Your task to perform on an android device: delete location history Image 0: 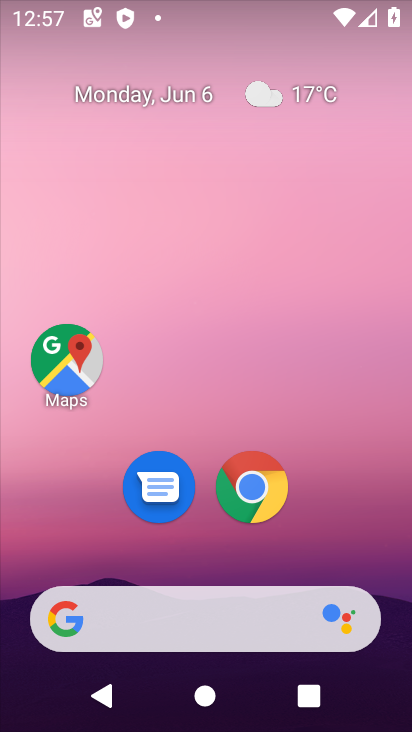
Step 0: click (67, 359)
Your task to perform on an android device: delete location history Image 1: 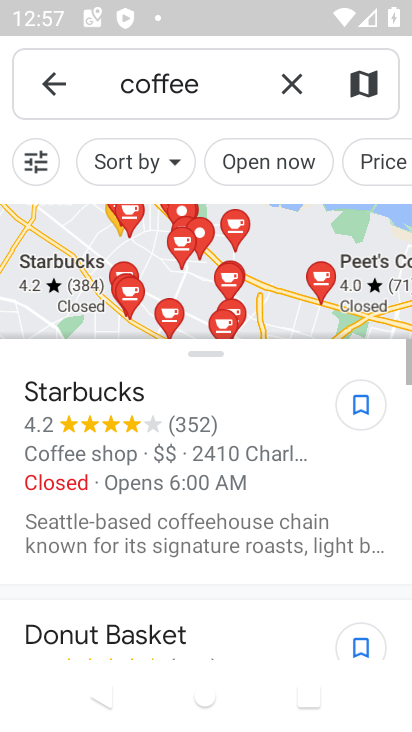
Step 1: click (54, 88)
Your task to perform on an android device: delete location history Image 2: 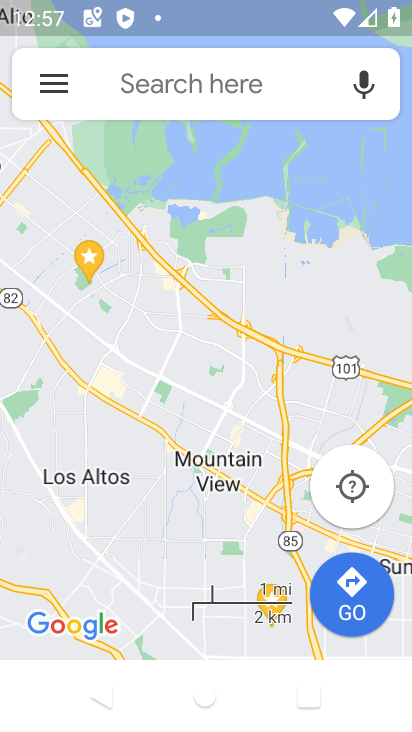
Step 2: click (54, 88)
Your task to perform on an android device: delete location history Image 3: 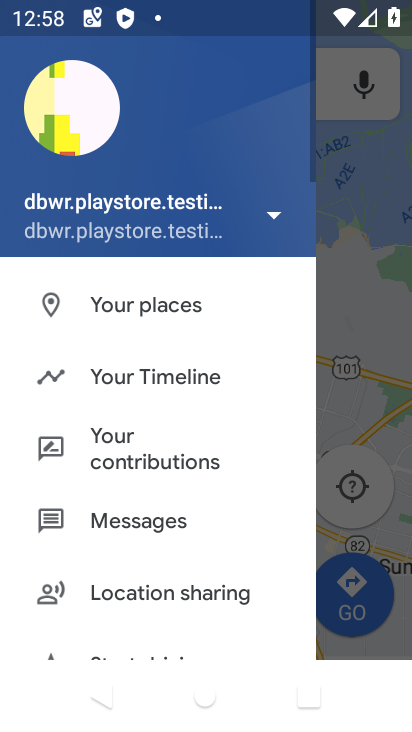
Step 3: click (143, 362)
Your task to perform on an android device: delete location history Image 4: 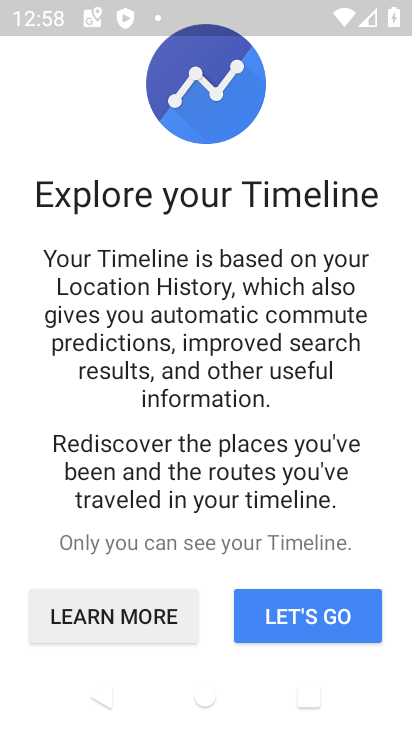
Step 4: click (355, 619)
Your task to perform on an android device: delete location history Image 5: 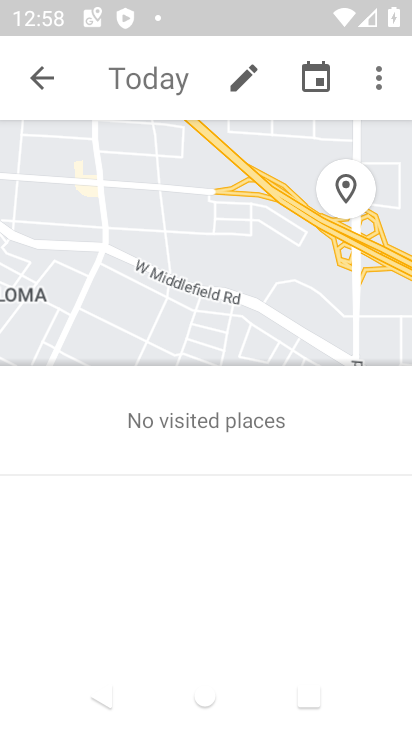
Step 5: click (369, 84)
Your task to perform on an android device: delete location history Image 6: 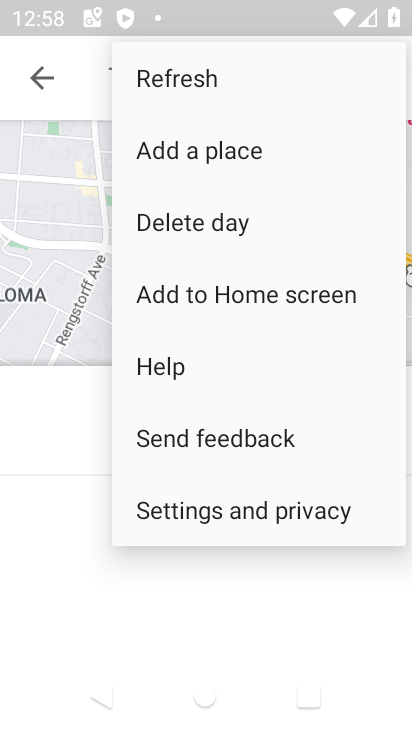
Step 6: click (198, 505)
Your task to perform on an android device: delete location history Image 7: 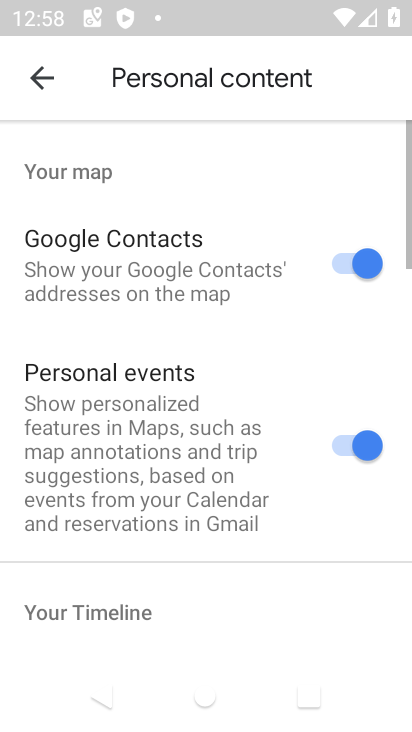
Step 7: drag from (187, 518) to (222, 38)
Your task to perform on an android device: delete location history Image 8: 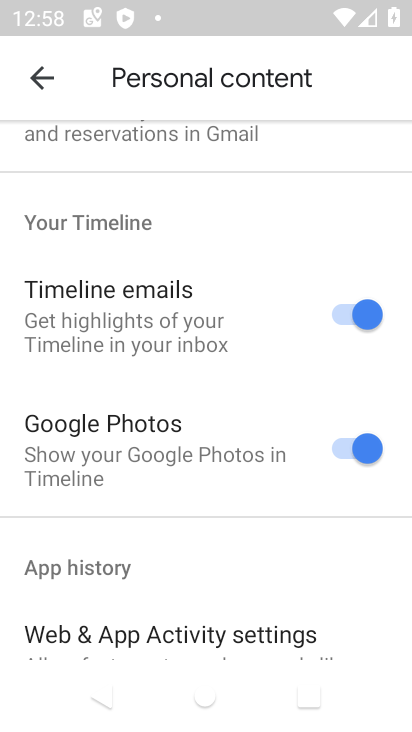
Step 8: drag from (146, 585) to (228, 33)
Your task to perform on an android device: delete location history Image 9: 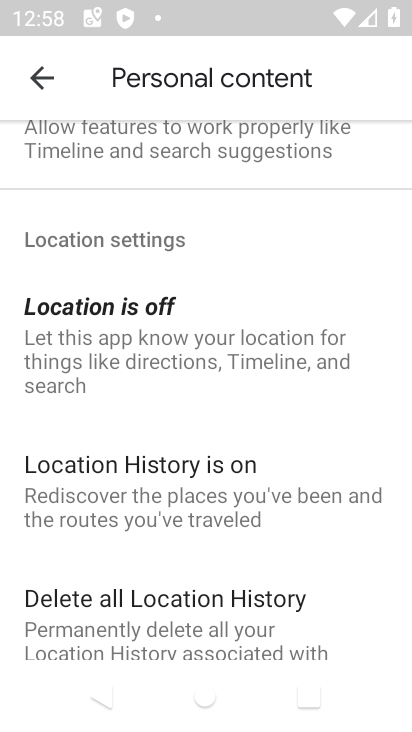
Step 9: click (152, 629)
Your task to perform on an android device: delete location history Image 10: 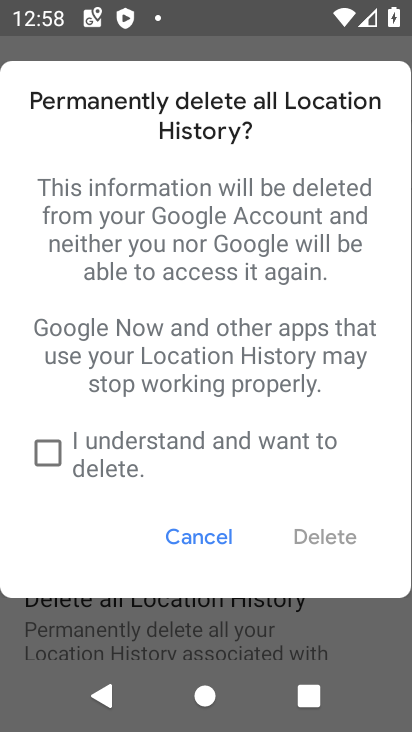
Step 10: click (70, 446)
Your task to perform on an android device: delete location history Image 11: 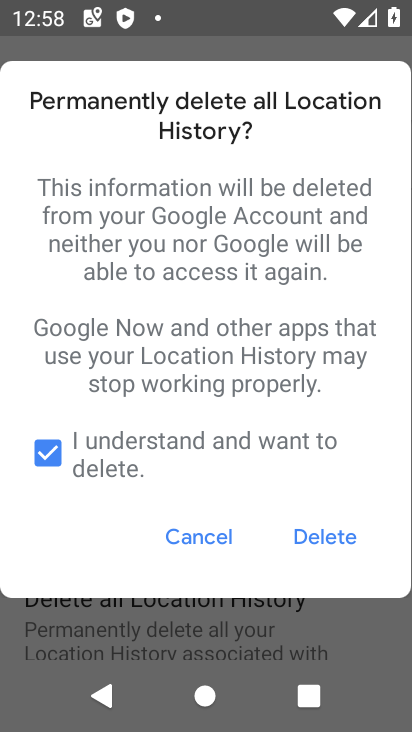
Step 11: drag from (177, 410) to (248, 61)
Your task to perform on an android device: delete location history Image 12: 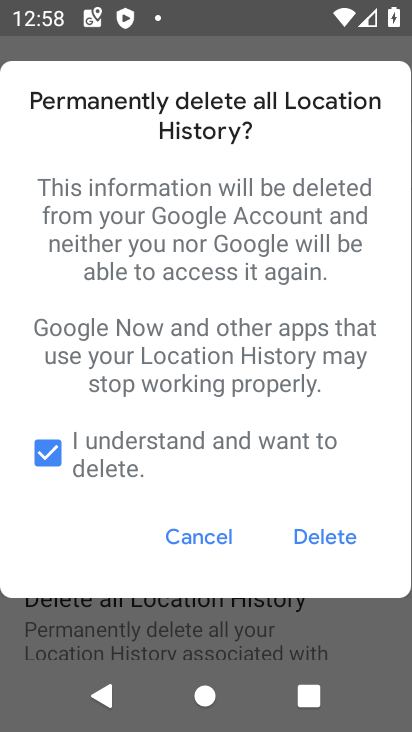
Step 12: click (313, 548)
Your task to perform on an android device: delete location history Image 13: 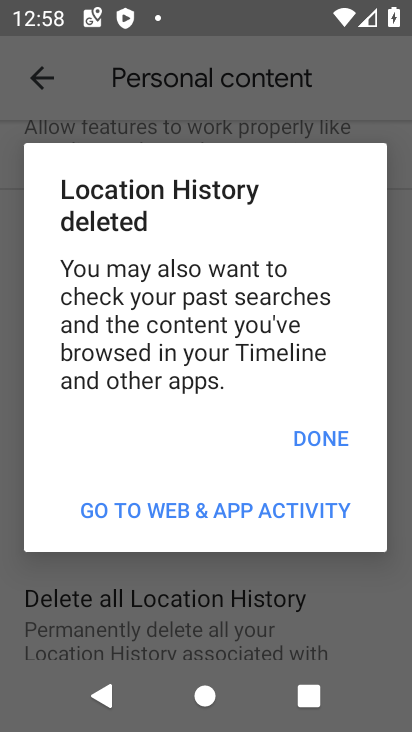
Step 13: click (317, 434)
Your task to perform on an android device: delete location history Image 14: 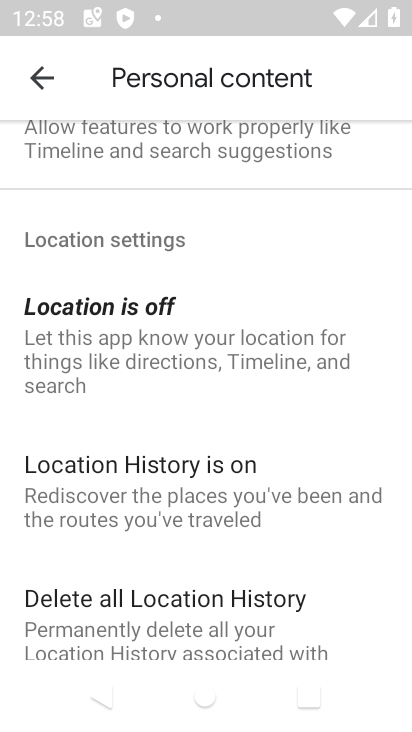
Step 14: task complete